Your task to perform on an android device: toggle pop-ups in chrome Image 0: 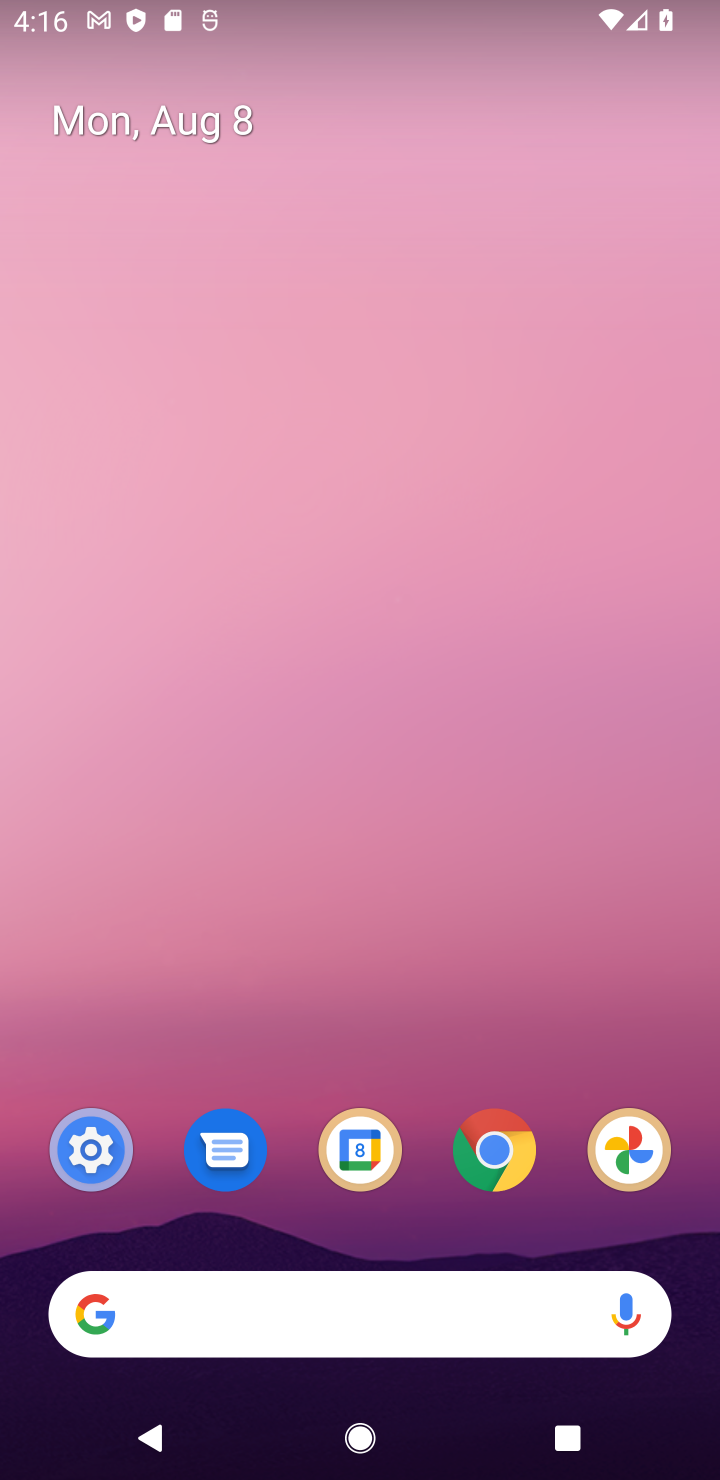
Step 0: click (485, 1197)
Your task to perform on an android device: toggle pop-ups in chrome Image 1: 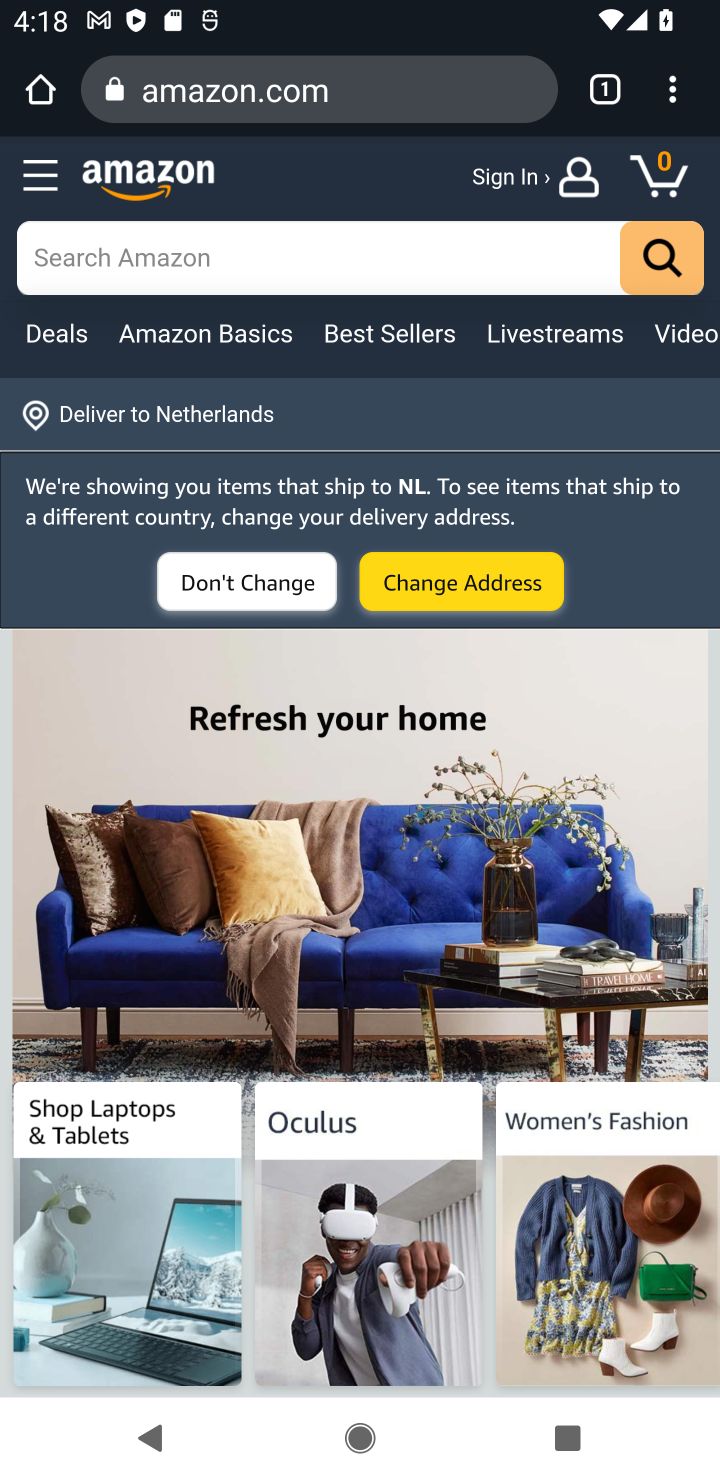
Step 1: task complete